Your task to perform on an android device: What's on my calendar today? Image 0: 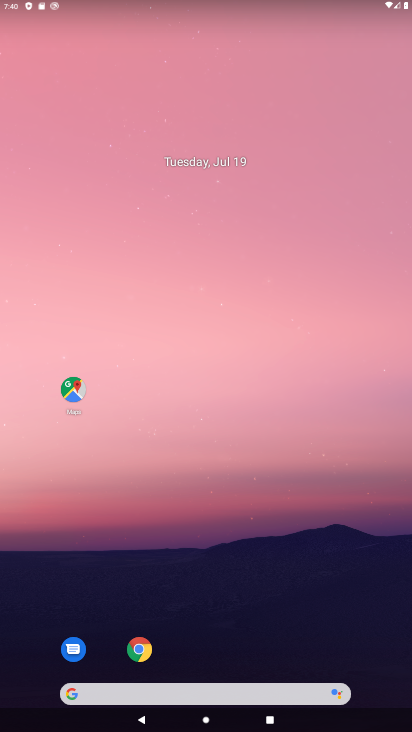
Step 0: drag from (254, 659) to (234, 216)
Your task to perform on an android device: What's on my calendar today? Image 1: 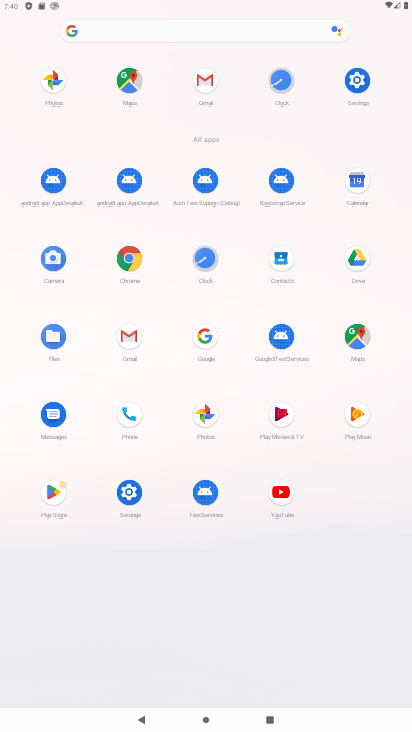
Step 1: click (350, 189)
Your task to perform on an android device: What's on my calendar today? Image 2: 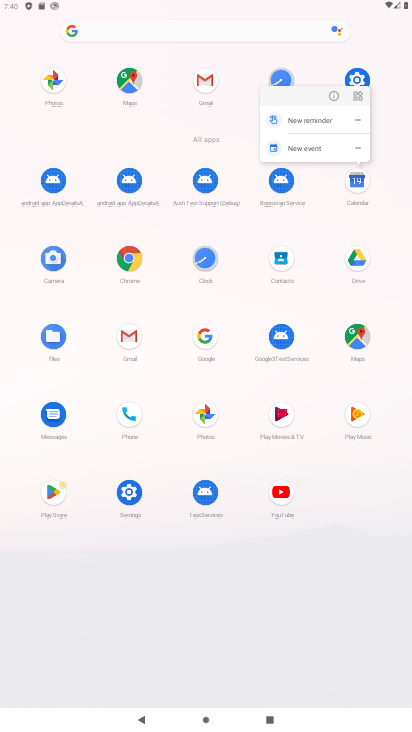
Step 2: click (349, 189)
Your task to perform on an android device: What's on my calendar today? Image 3: 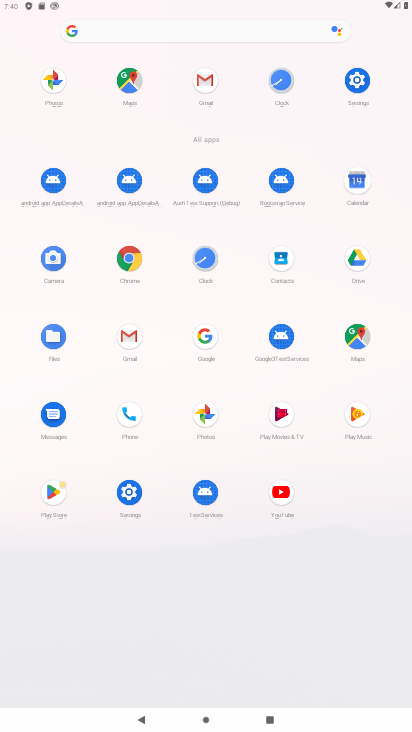
Step 3: click (349, 190)
Your task to perform on an android device: What's on my calendar today? Image 4: 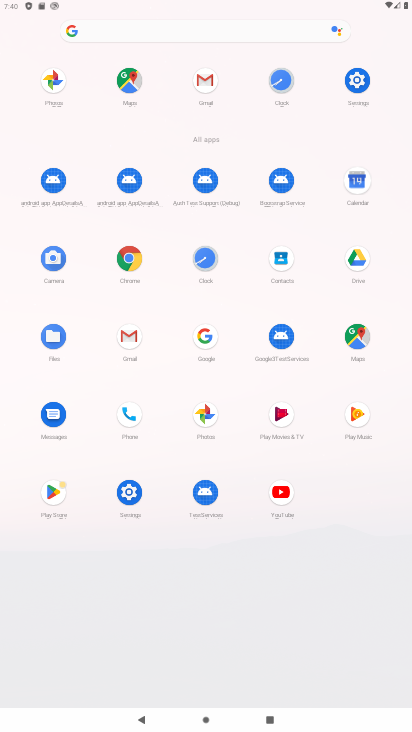
Step 4: click (351, 189)
Your task to perform on an android device: What's on my calendar today? Image 5: 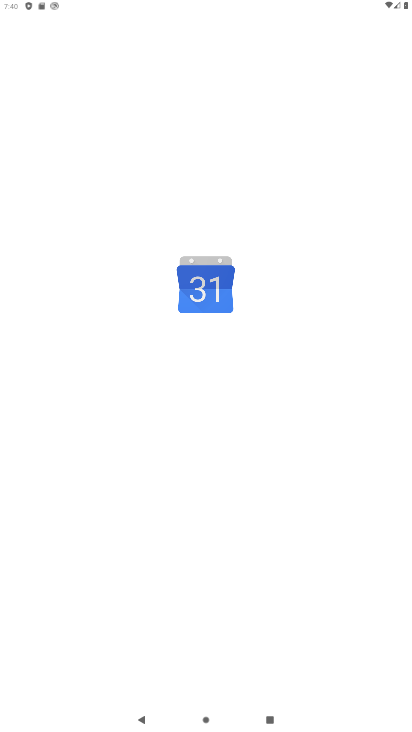
Step 5: click (354, 190)
Your task to perform on an android device: What's on my calendar today? Image 6: 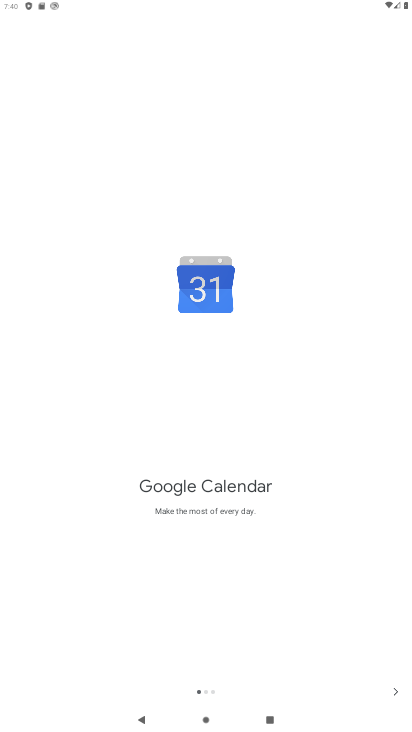
Step 6: click (398, 689)
Your task to perform on an android device: What's on my calendar today? Image 7: 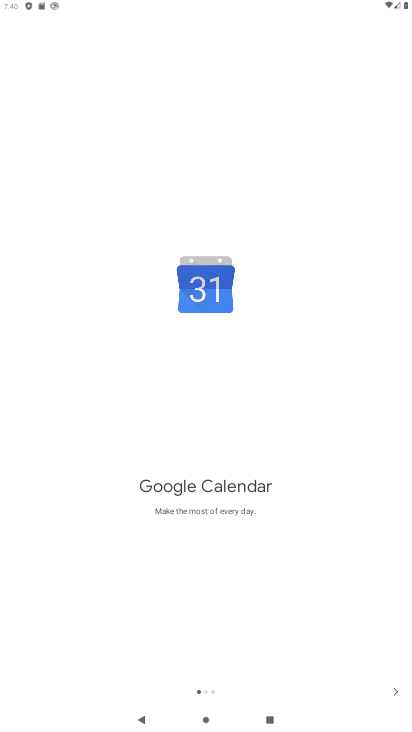
Step 7: click (398, 689)
Your task to perform on an android device: What's on my calendar today? Image 8: 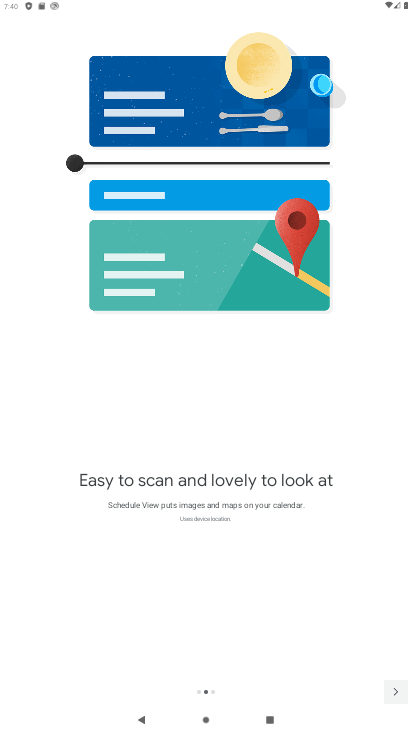
Step 8: click (394, 692)
Your task to perform on an android device: What's on my calendar today? Image 9: 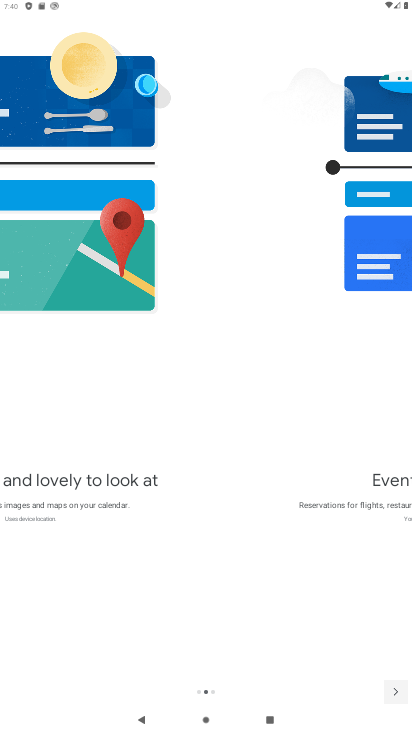
Step 9: click (394, 692)
Your task to perform on an android device: What's on my calendar today? Image 10: 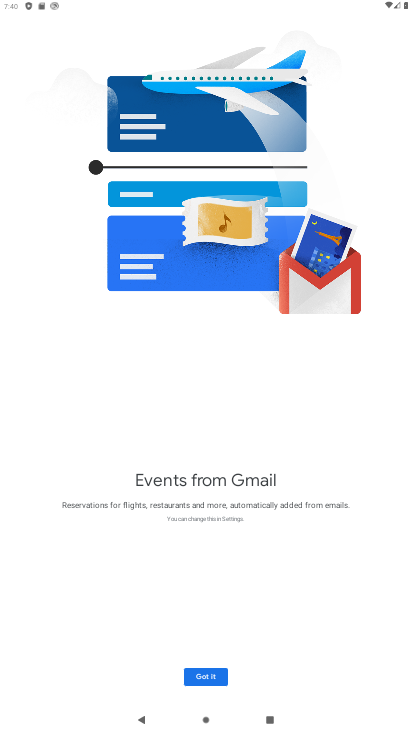
Step 10: click (394, 692)
Your task to perform on an android device: What's on my calendar today? Image 11: 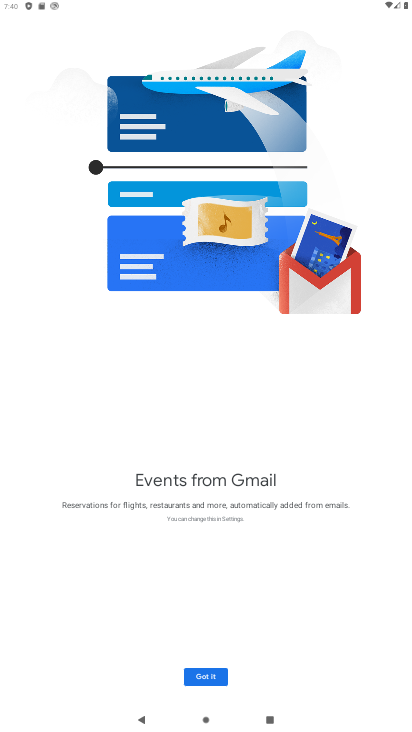
Step 11: click (212, 671)
Your task to perform on an android device: What's on my calendar today? Image 12: 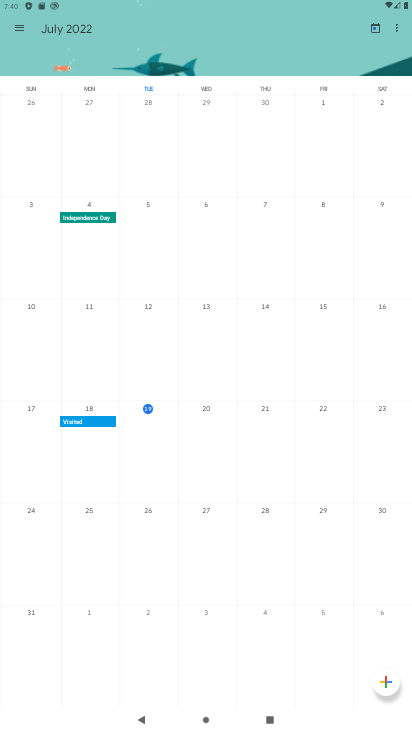
Step 12: task complete